Your task to perform on an android device: remove spam from my inbox in the gmail app Image 0: 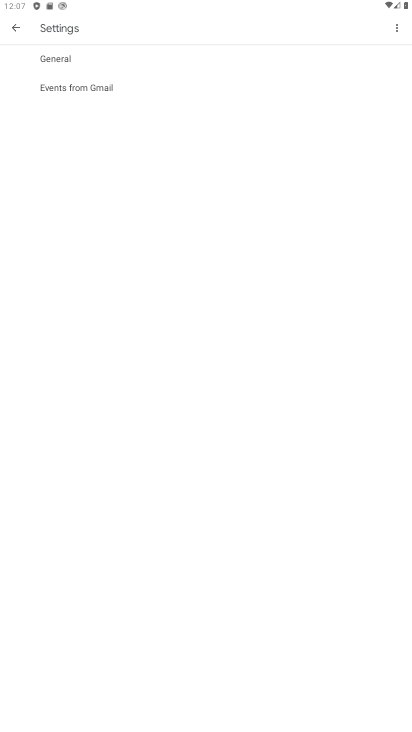
Step 0: press home button
Your task to perform on an android device: remove spam from my inbox in the gmail app Image 1: 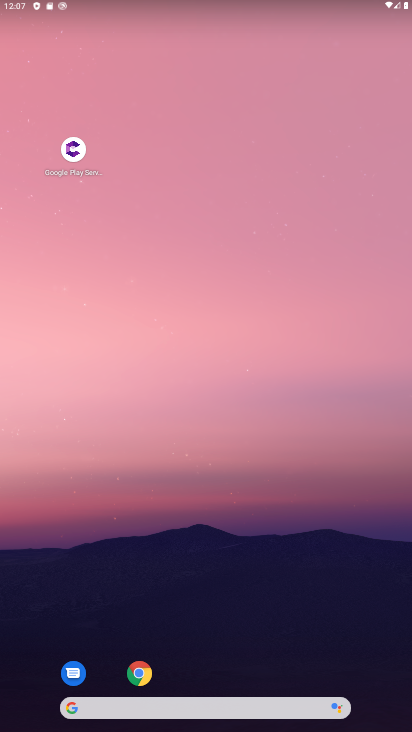
Step 1: drag from (296, 595) to (232, 24)
Your task to perform on an android device: remove spam from my inbox in the gmail app Image 2: 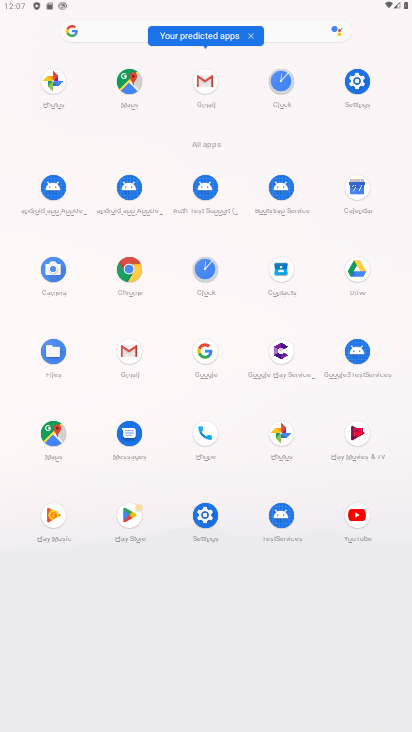
Step 2: click (209, 92)
Your task to perform on an android device: remove spam from my inbox in the gmail app Image 3: 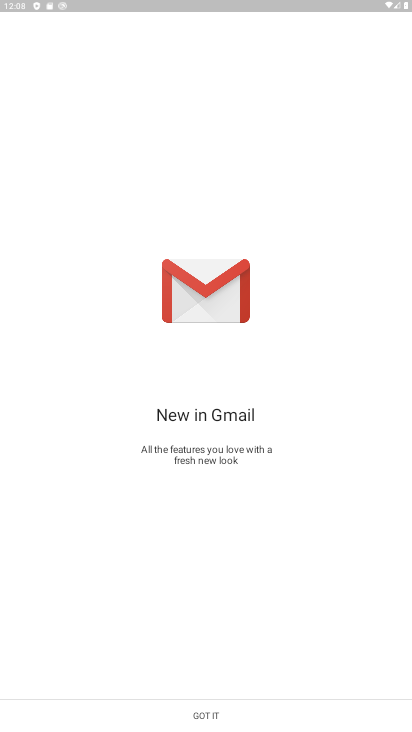
Step 3: press home button
Your task to perform on an android device: remove spam from my inbox in the gmail app Image 4: 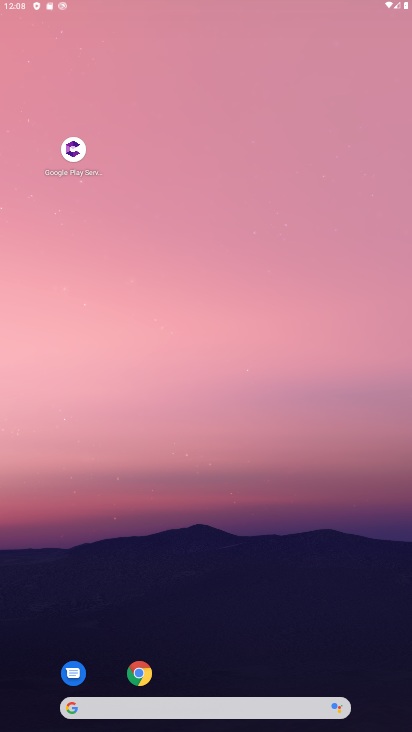
Step 4: drag from (280, 617) to (265, 66)
Your task to perform on an android device: remove spam from my inbox in the gmail app Image 5: 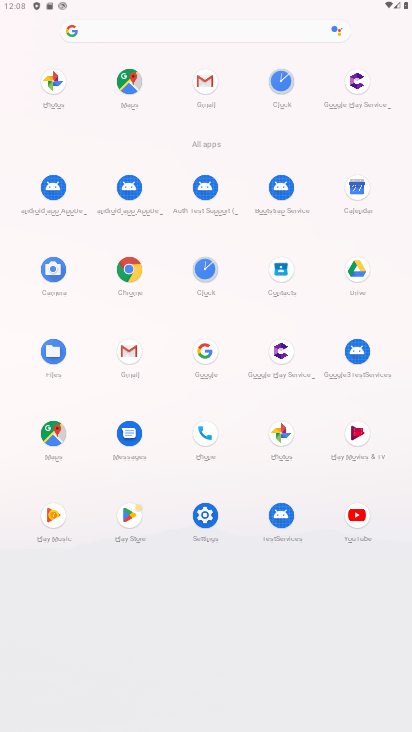
Step 5: click (211, 90)
Your task to perform on an android device: remove spam from my inbox in the gmail app Image 6: 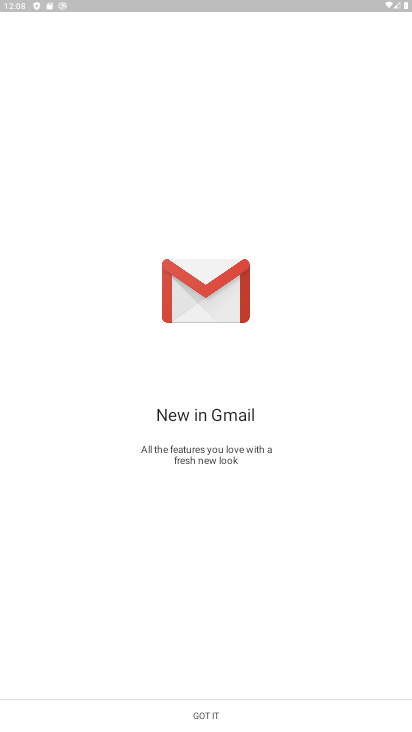
Step 6: click (217, 721)
Your task to perform on an android device: remove spam from my inbox in the gmail app Image 7: 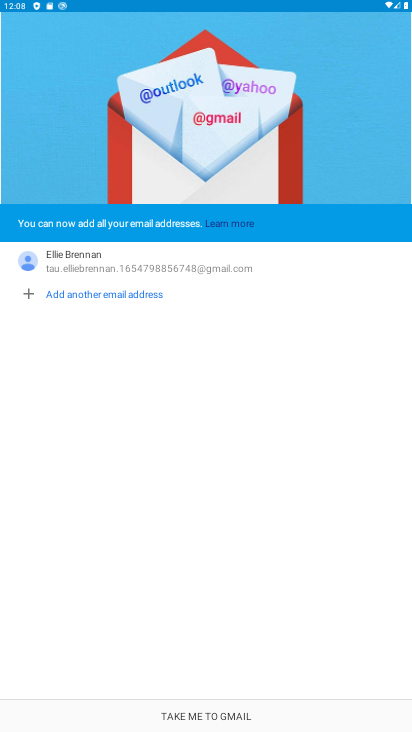
Step 7: click (217, 721)
Your task to perform on an android device: remove spam from my inbox in the gmail app Image 8: 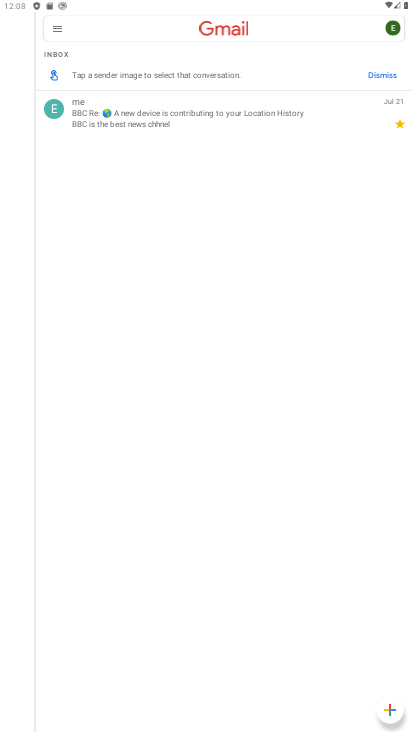
Step 8: click (61, 21)
Your task to perform on an android device: remove spam from my inbox in the gmail app Image 9: 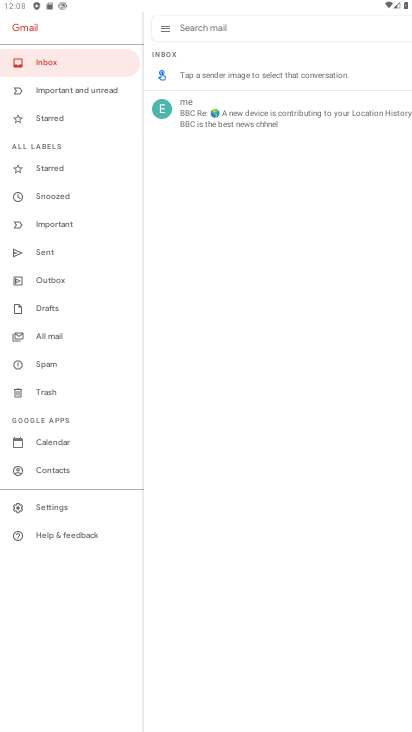
Step 9: click (52, 362)
Your task to perform on an android device: remove spam from my inbox in the gmail app Image 10: 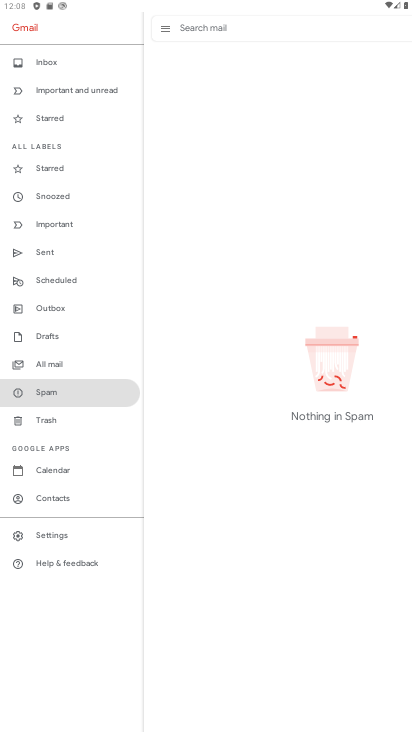
Step 10: click (62, 70)
Your task to perform on an android device: remove spam from my inbox in the gmail app Image 11: 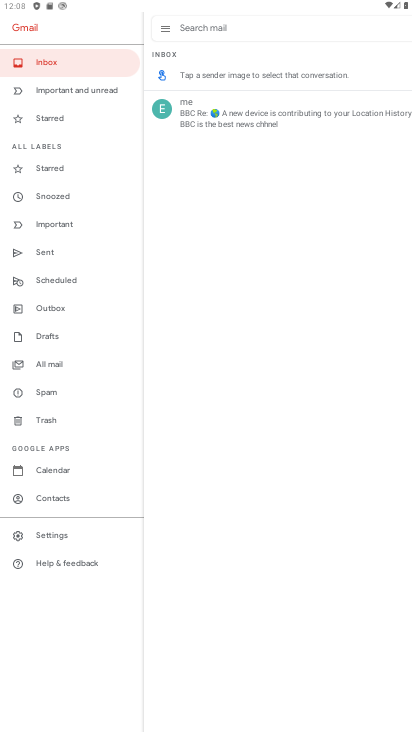
Step 11: click (253, 111)
Your task to perform on an android device: remove spam from my inbox in the gmail app Image 12: 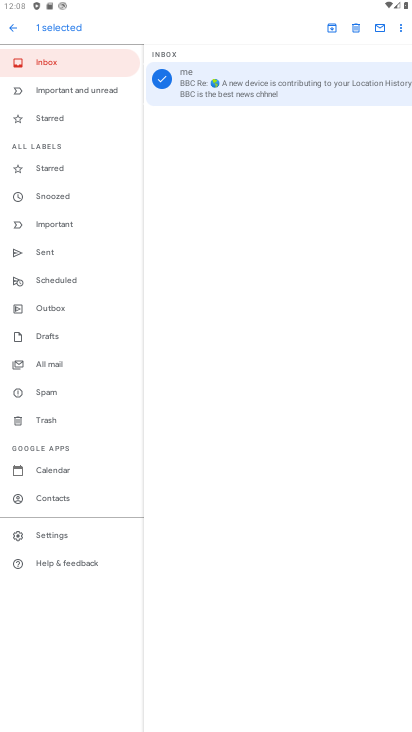
Step 12: click (264, 99)
Your task to perform on an android device: remove spam from my inbox in the gmail app Image 13: 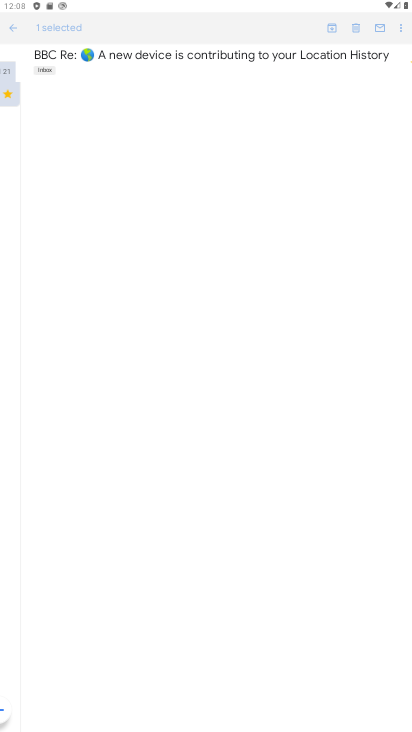
Step 13: click (289, 249)
Your task to perform on an android device: remove spam from my inbox in the gmail app Image 14: 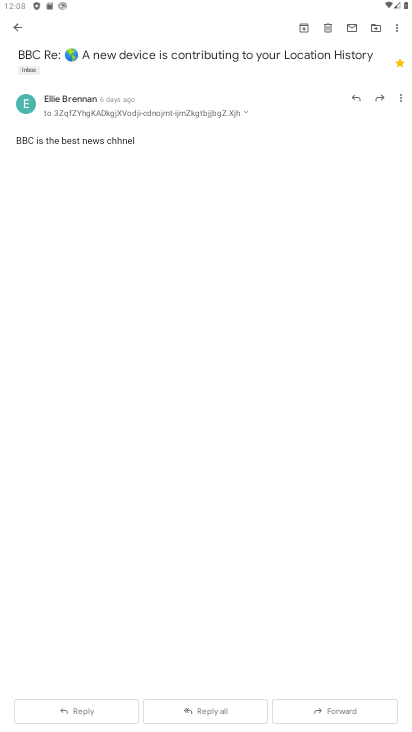
Step 14: click (16, 24)
Your task to perform on an android device: remove spam from my inbox in the gmail app Image 15: 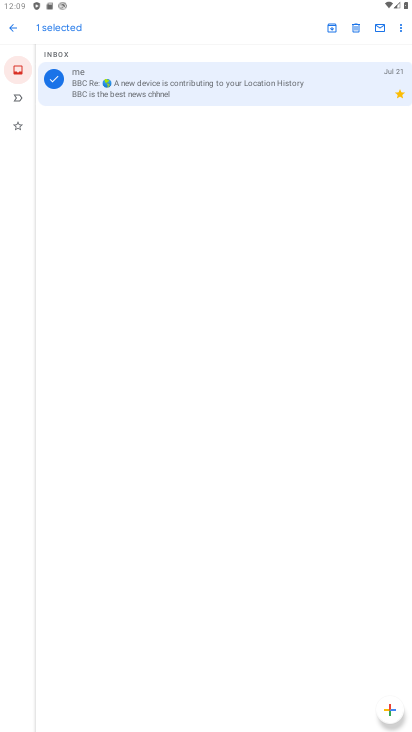
Step 15: task complete